Your task to perform on an android device: toggle show notifications on the lock screen Image 0: 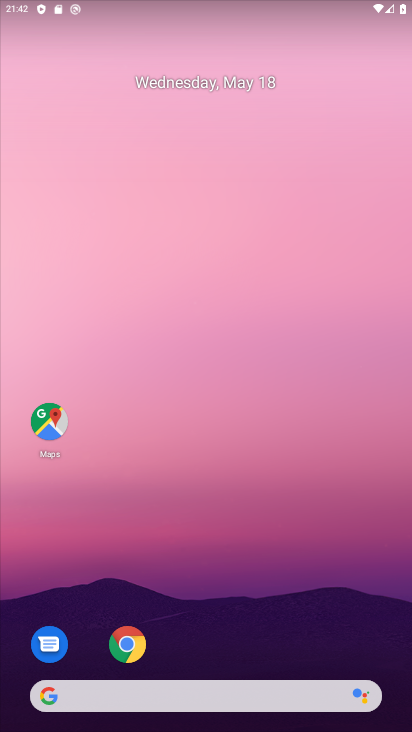
Step 0: drag from (230, 621) to (322, 236)
Your task to perform on an android device: toggle show notifications on the lock screen Image 1: 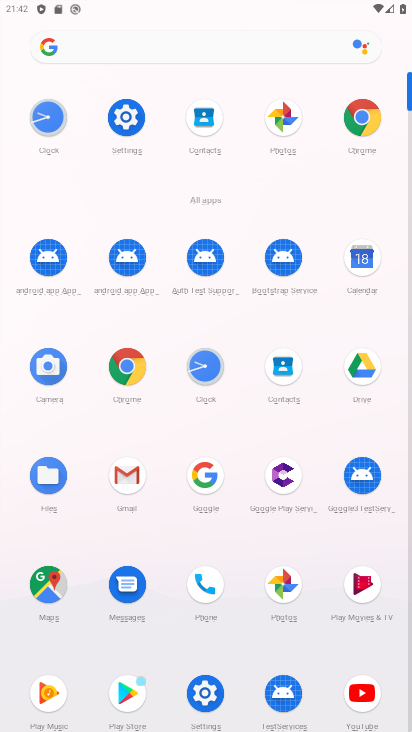
Step 1: click (127, 123)
Your task to perform on an android device: toggle show notifications on the lock screen Image 2: 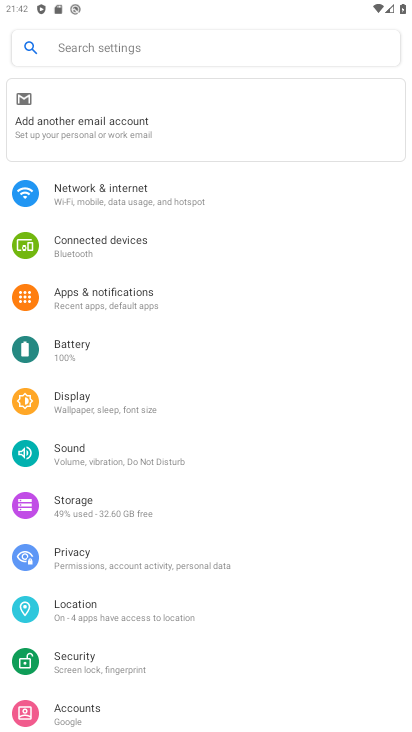
Step 2: click (113, 297)
Your task to perform on an android device: toggle show notifications on the lock screen Image 3: 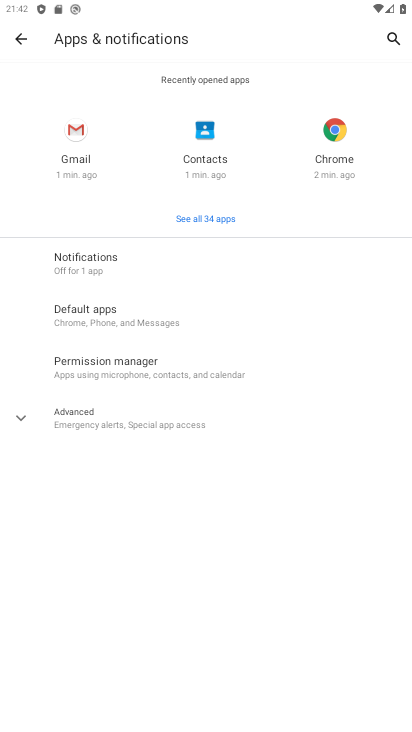
Step 3: click (113, 287)
Your task to perform on an android device: toggle show notifications on the lock screen Image 4: 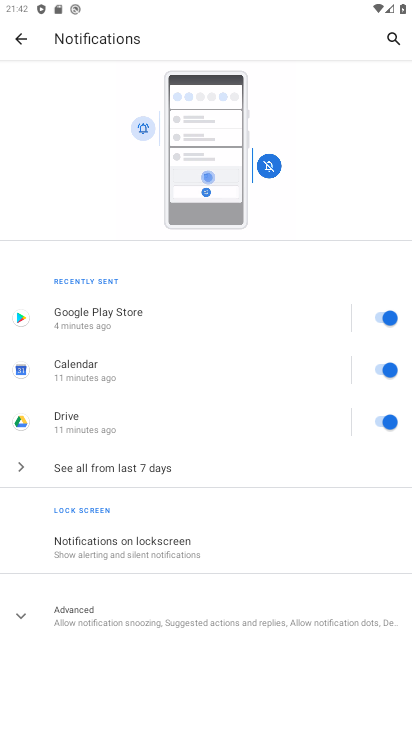
Step 4: click (159, 543)
Your task to perform on an android device: toggle show notifications on the lock screen Image 5: 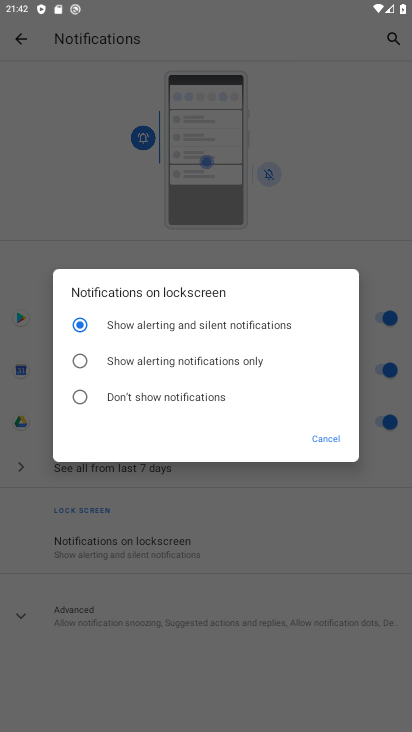
Step 5: click (184, 366)
Your task to perform on an android device: toggle show notifications on the lock screen Image 6: 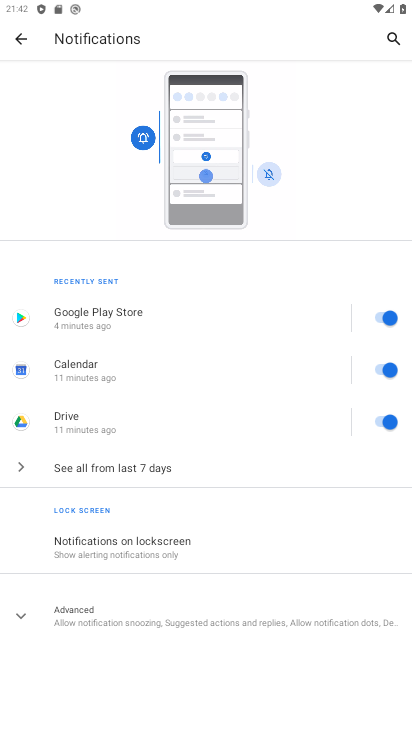
Step 6: task complete